Your task to perform on an android device: Open internet settings Image 0: 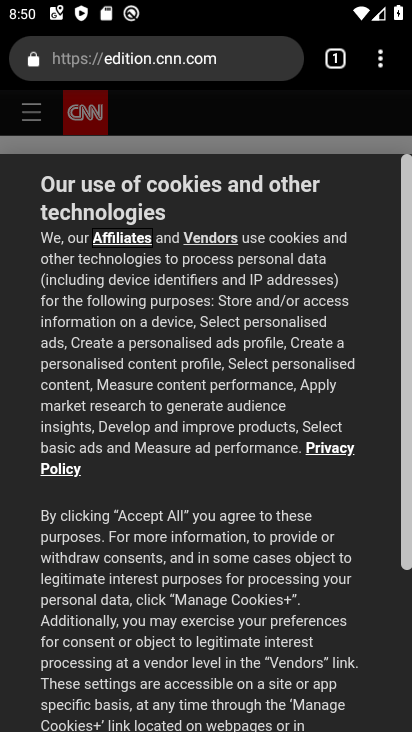
Step 0: press home button
Your task to perform on an android device: Open internet settings Image 1: 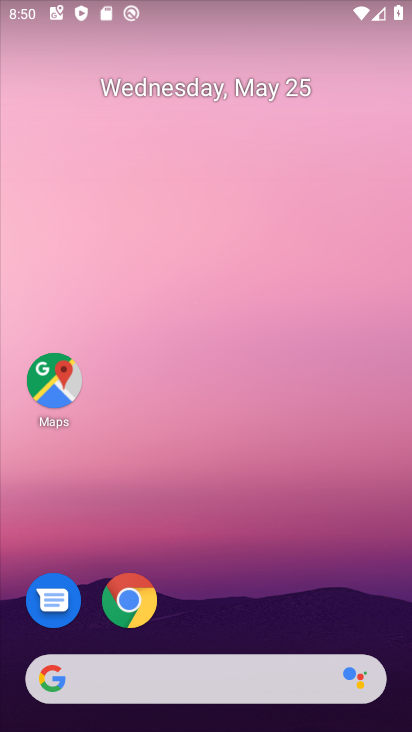
Step 1: drag from (308, 514) to (254, 3)
Your task to perform on an android device: Open internet settings Image 2: 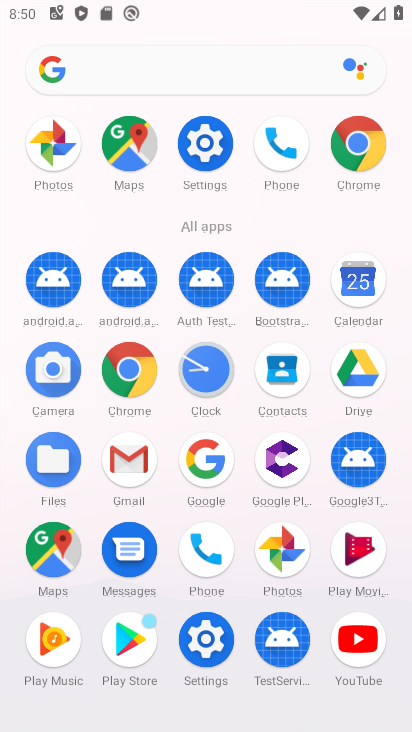
Step 2: click (203, 143)
Your task to perform on an android device: Open internet settings Image 3: 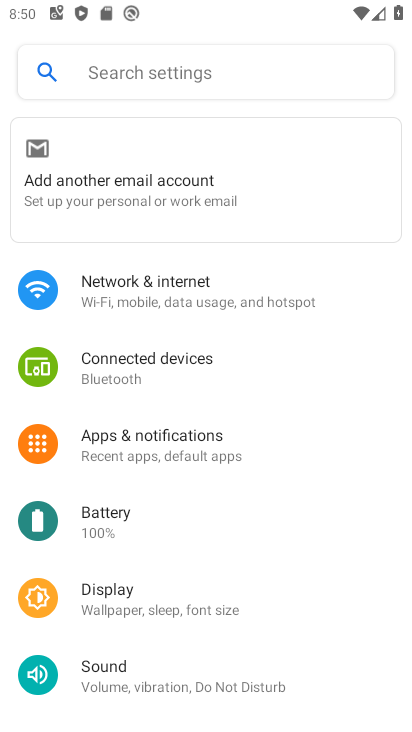
Step 3: click (151, 295)
Your task to perform on an android device: Open internet settings Image 4: 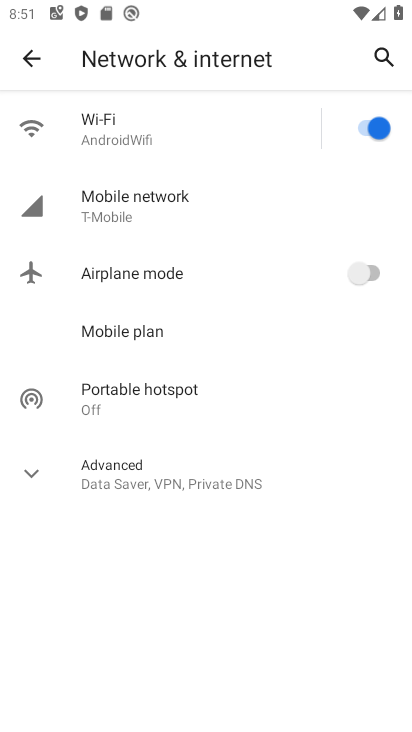
Step 4: click (38, 474)
Your task to perform on an android device: Open internet settings Image 5: 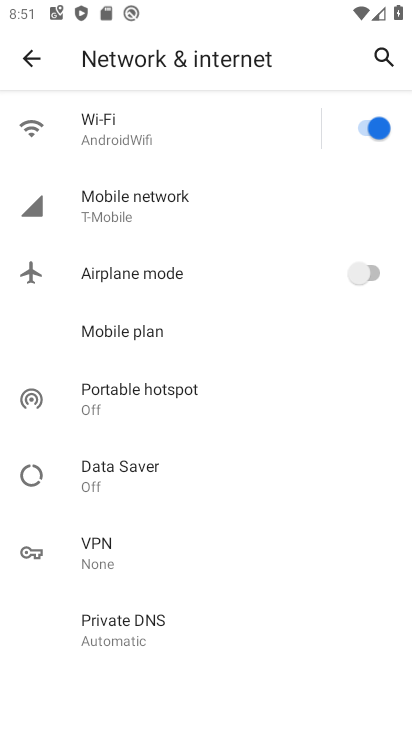
Step 5: task complete